Your task to perform on an android device: turn off notifications in google photos Image 0: 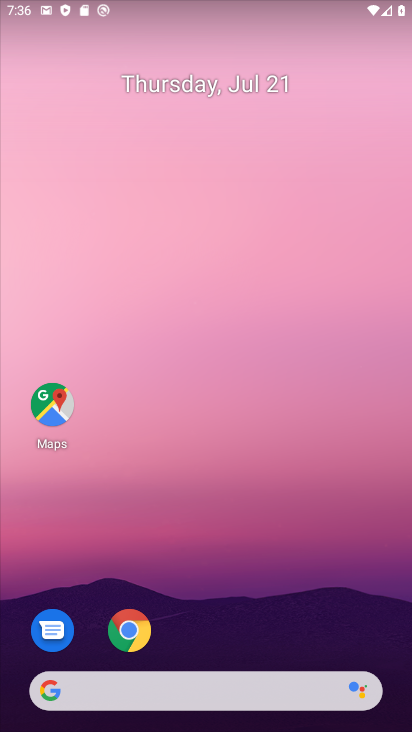
Step 0: drag from (301, 644) to (214, 158)
Your task to perform on an android device: turn off notifications in google photos Image 1: 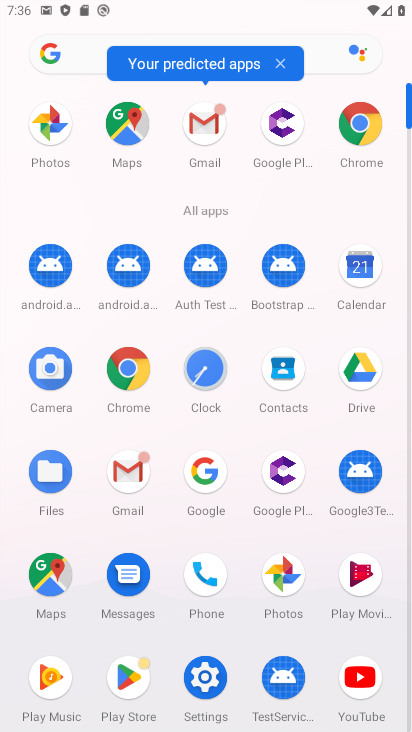
Step 1: click (49, 132)
Your task to perform on an android device: turn off notifications in google photos Image 2: 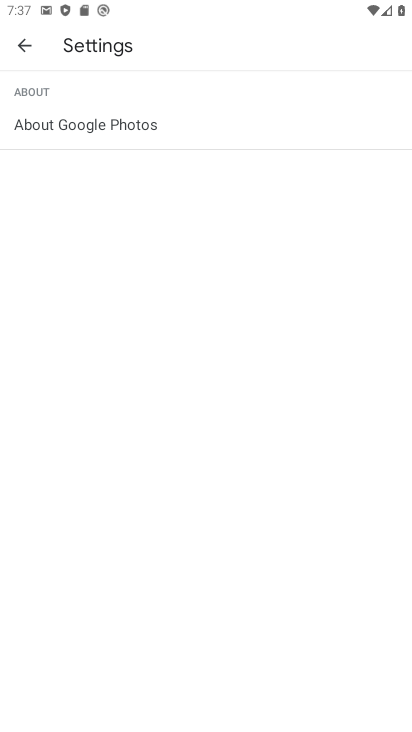
Step 2: click (23, 50)
Your task to perform on an android device: turn off notifications in google photos Image 3: 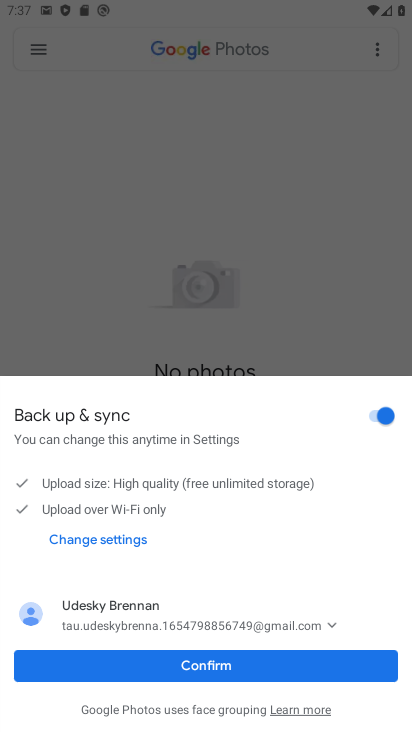
Step 3: click (216, 671)
Your task to perform on an android device: turn off notifications in google photos Image 4: 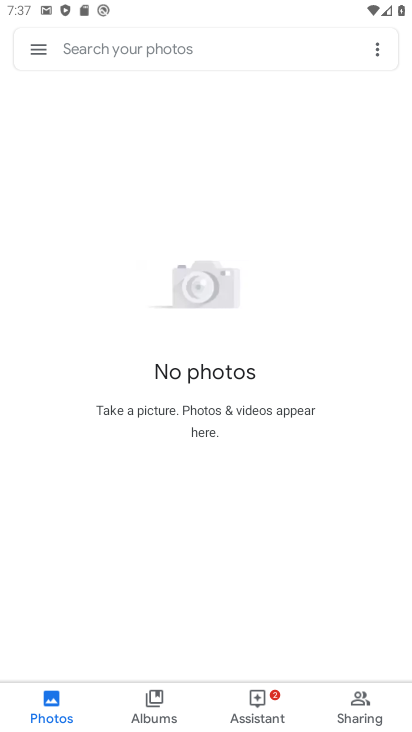
Step 4: click (36, 54)
Your task to perform on an android device: turn off notifications in google photos Image 5: 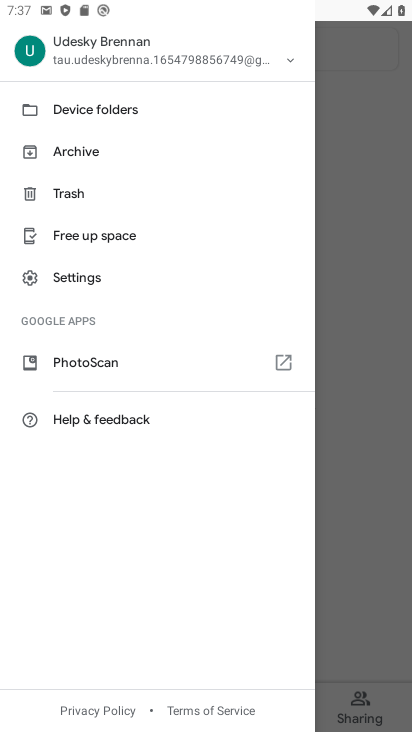
Step 5: click (100, 278)
Your task to perform on an android device: turn off notifications in google photos Image 6: 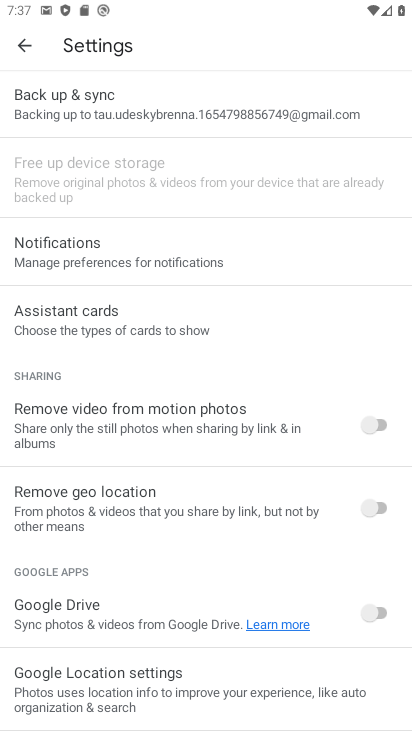
Step 6: click (96, 265)
Your task to perform on an android device: turn off notifications in google photos Image 7: 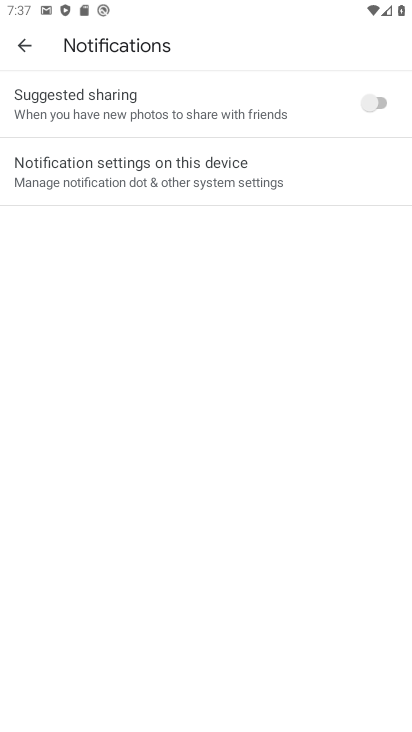
Step 7: click (133, 183)
Your task to perform on an android device: turn off notifications in google photos Image 8: 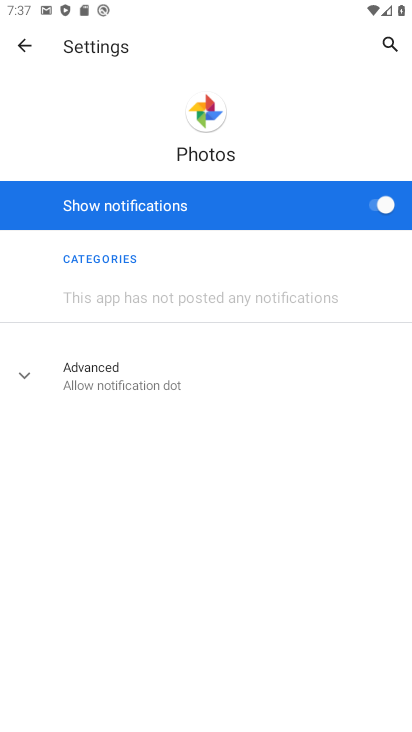
Step 8: click (363, 206)
Your task to perform on an android device: turn off notifications in google photos Image 9: 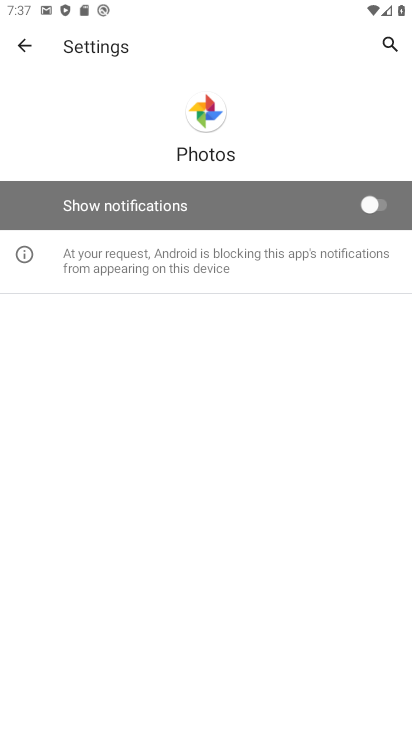
Step 9: task complete